Your task to perform on an android device: turn off wifi Image 0: 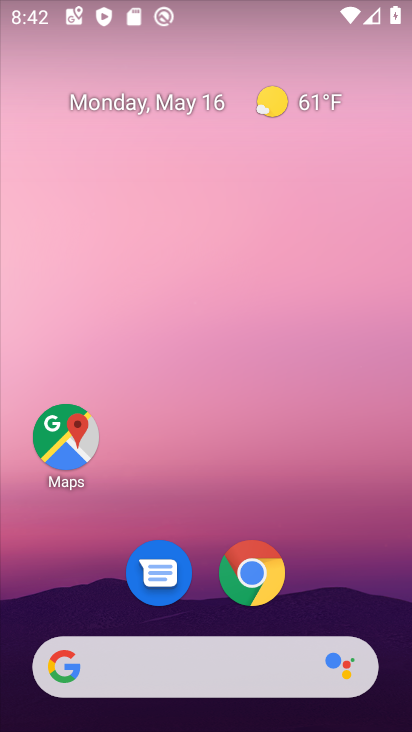
Step 0: drag from (207, 723) to (200, 163)
Your task to perform on an android device: turn off wifi Image 1: 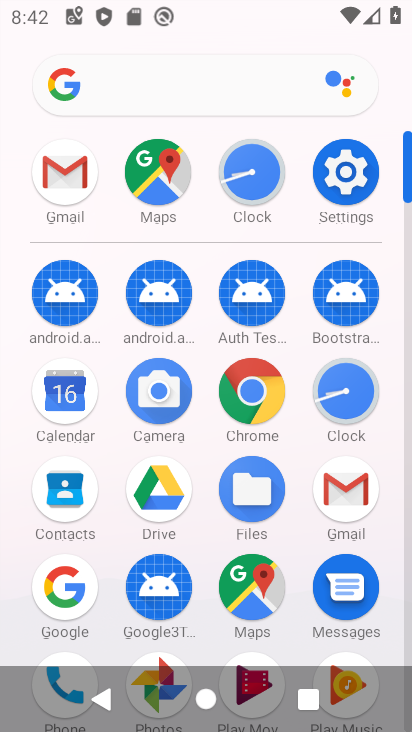
Step 1: click (353, 162)
Your task to perform on an android device: turn off wifi Image 2: 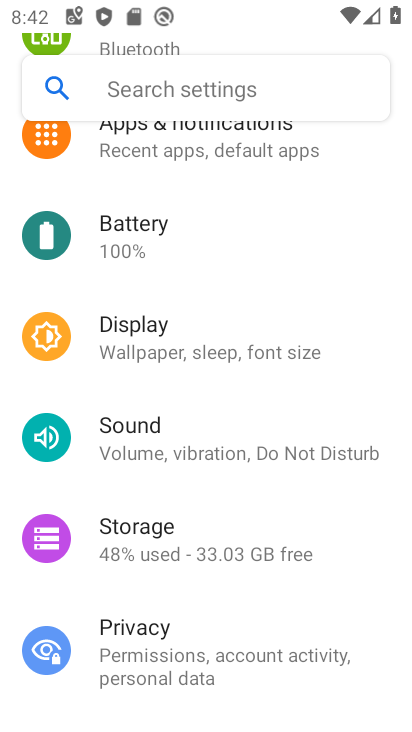
Step 2: drag from (247, 190) to (252, 562)
Your task to perform on an android device: turn off wifi Image 3: 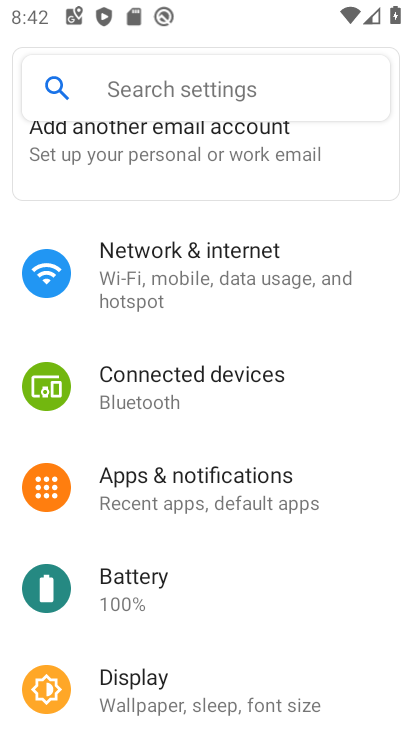
Step 3: drag from (214, 215) to (209, 581)
Your task to perform on an android device: turn off wifi Image 4: 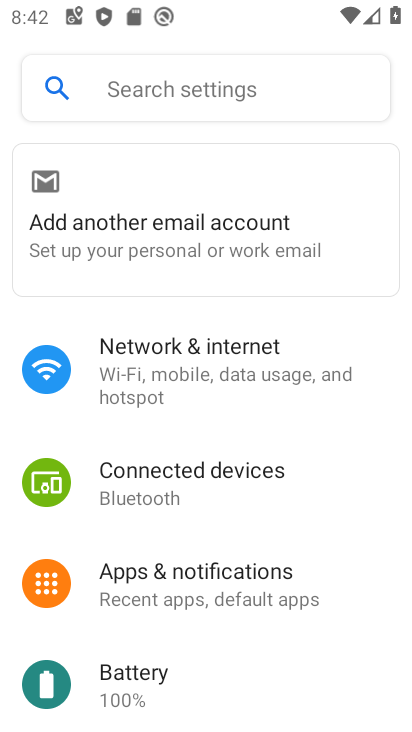
Step 4: click (154, 366)
Your task to perform on an android device: turn off wifi Image 5: 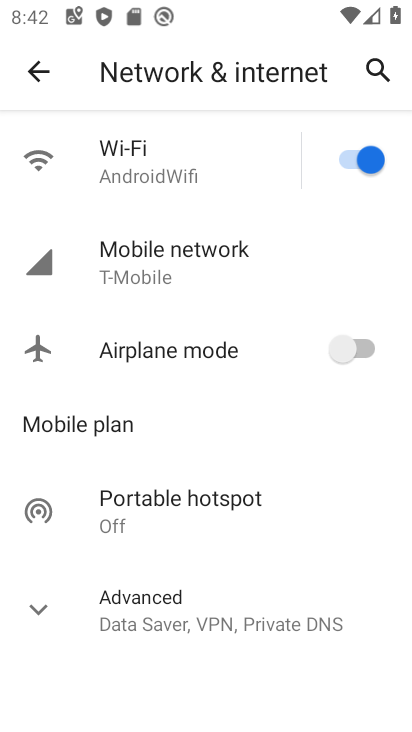
Step 5: click (346, 157)
Your task to perform on an android device: turn off wifi Image 6: 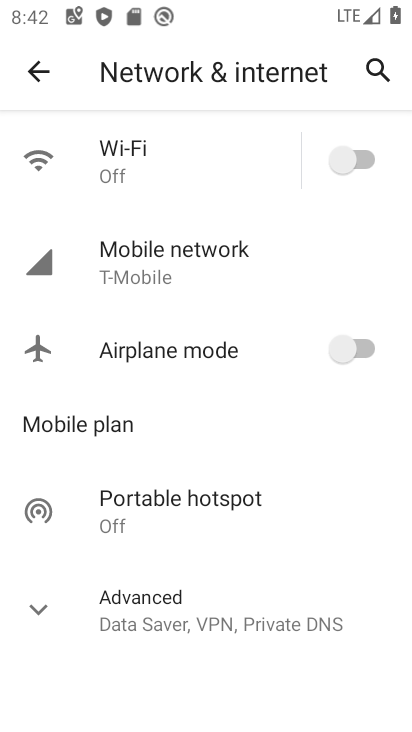
Step 6: task complete